Your task to perform on an android device: toggle notification dots Image 0: 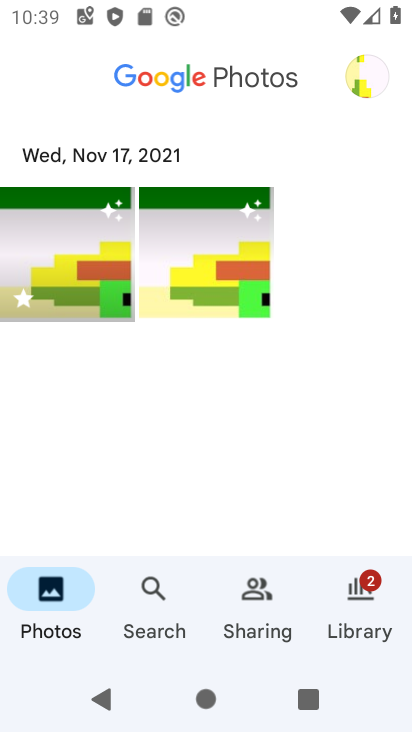
Step 0: press home button
Your task to perform on an android device: toggle notification dots Image 1: 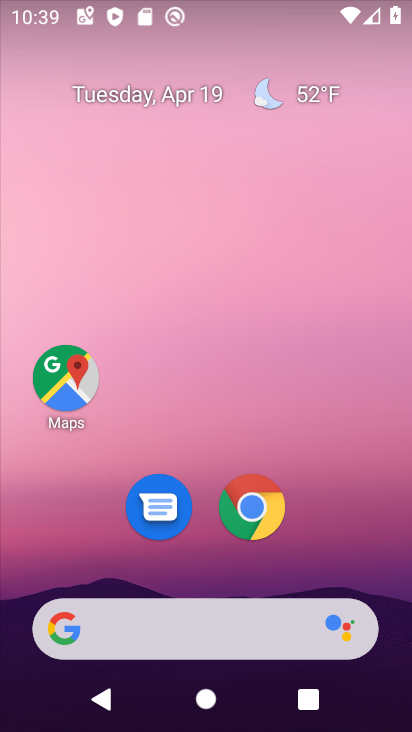
Step 1: drag from (358, 548) to (344, 76)
Your task to perform on an android device: toggle notification dots Image 2: 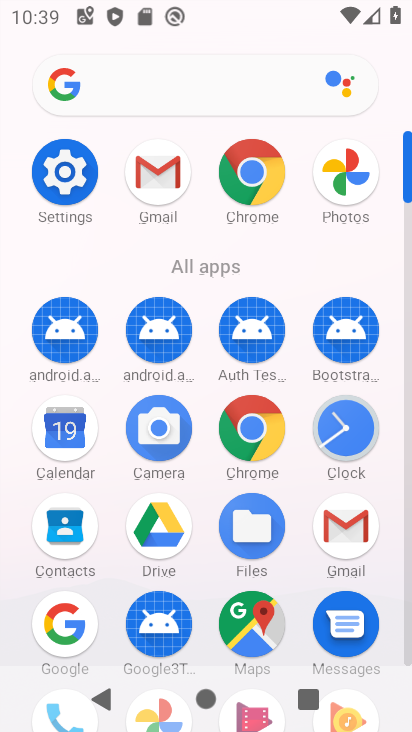
Step 2: click (63, 187)
Your task to perform on an android device: toggle notification dots Image 3: 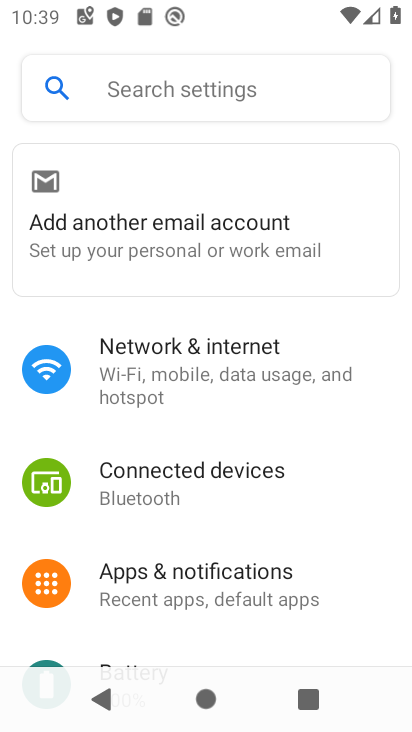
Step 3: drag from (357, 580) to (374, 361)
Your task to perform on an android device: toggle notification dots Image 4: 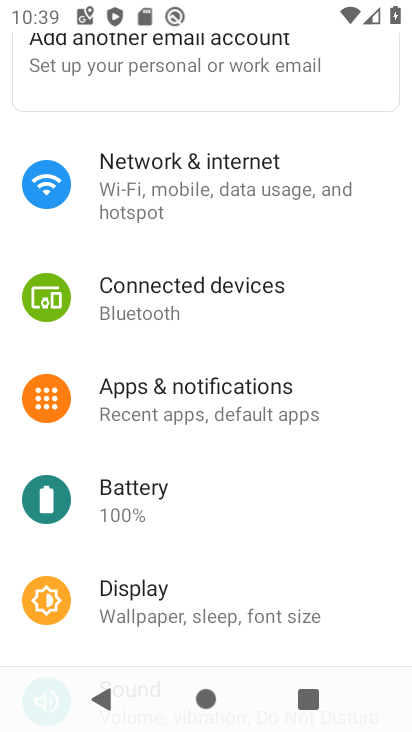
Step 4: drag from (359, 601) to (364, 316)
Your task to perform on an android device: toggle notification dots Image 5: 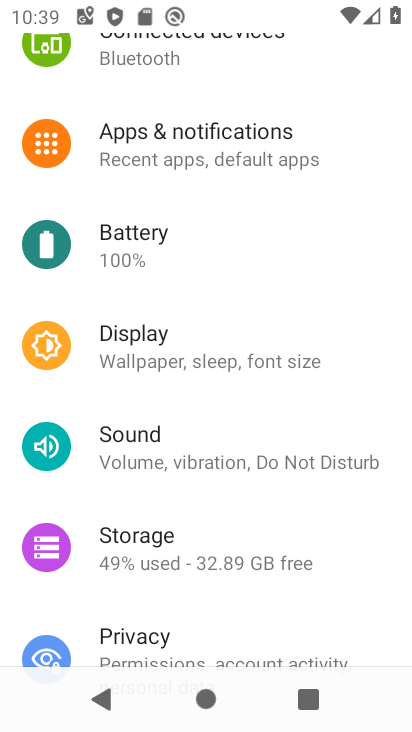
Step 5: drag from (339, 575) to (333, 268)
Your task to perform on an android device: toggle notification dots Image 6: 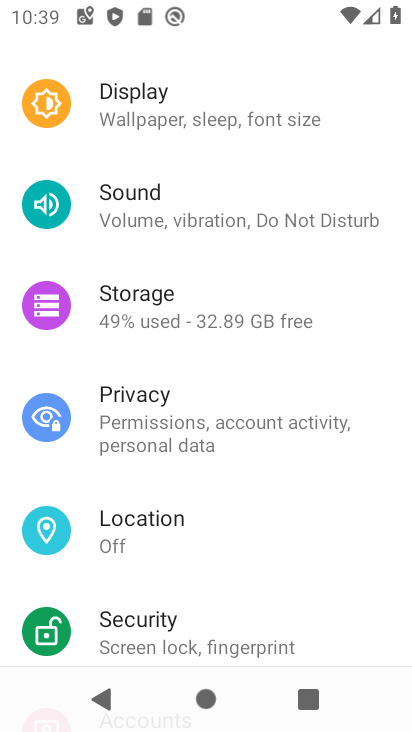
Step 6: drag from (330, 574) to (374, 266)
Your task to perform on an android device: toggle notification dots Image 7: 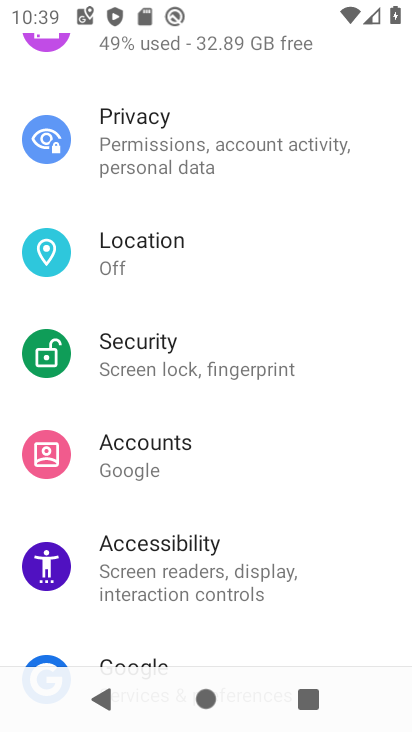
Step 7: drag from (347, 536) to (384, 250)
Your task to perform on an android device: toggle notification dots Image 8: 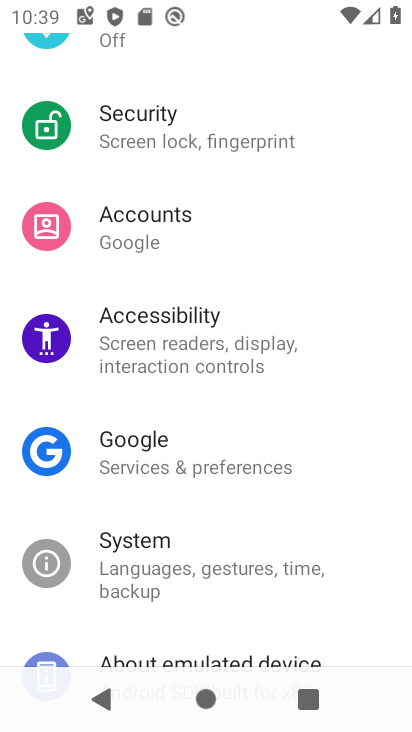
Step 8: drag from (363, 188) to (354, 467)
Your task to perform on an android device: toggle notification dots Image 9: 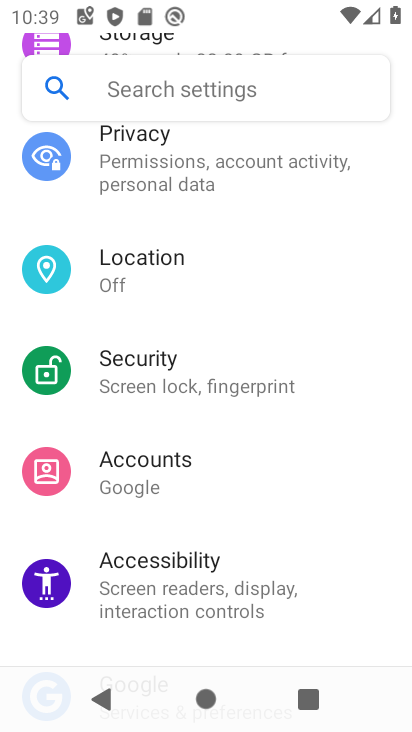
Step 9: drag from (367, 238) to (363, 478)
Your task to perform on an android device: toggle notification dots Image 10: 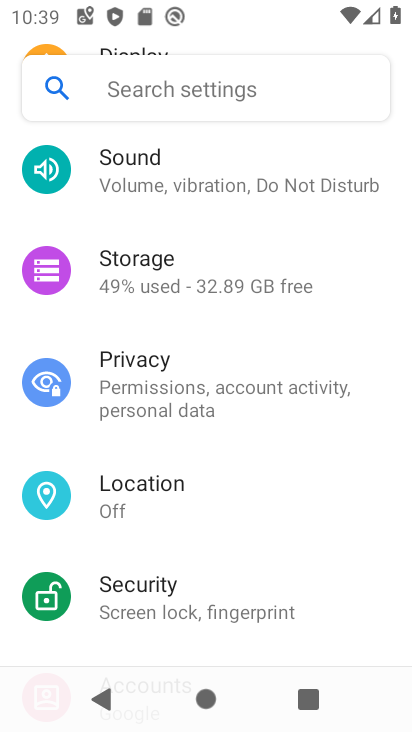
Step 10: drag from (347, 242) to (322, 512)
Your task to perform on an android device: toggle notification dots Image 11: 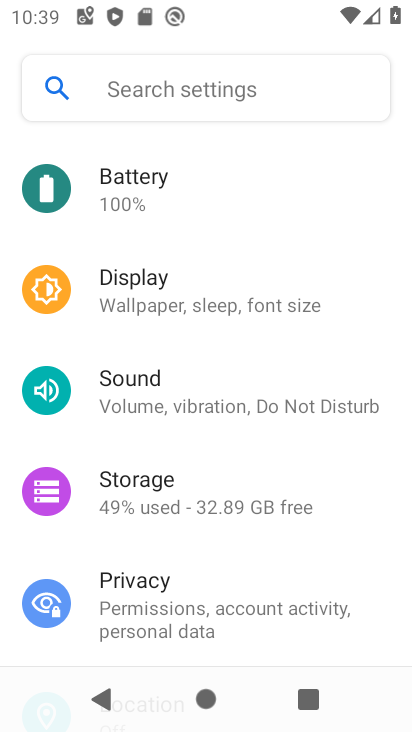
Step 11: drag from (370, 243) to (348, 499)
Your task to perform on an android device: toggle notification dots Image 12: 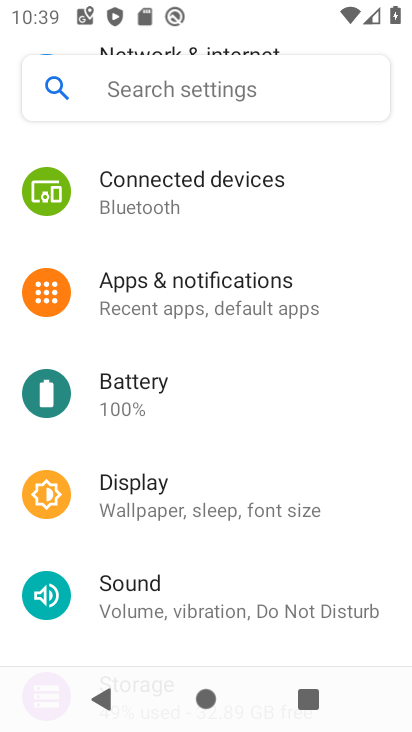
Step 12: click (216, 284)
Your task to perform on an android device: toggle notification dots Image 13: 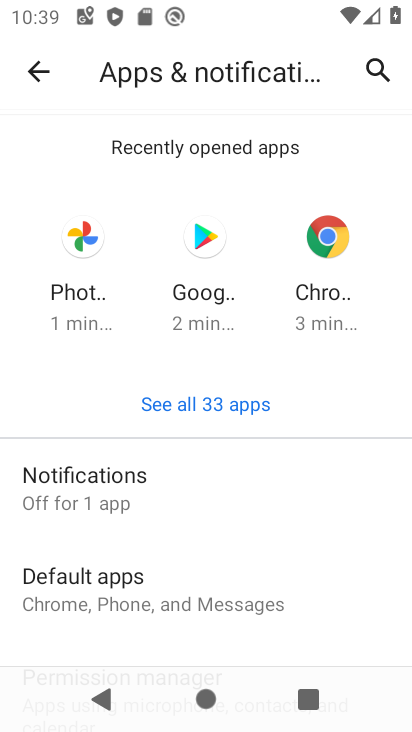
Step 13: drag from (327, 542) to (357, 245)
Your task to perform on an android device: toggle notification dots Image 14: 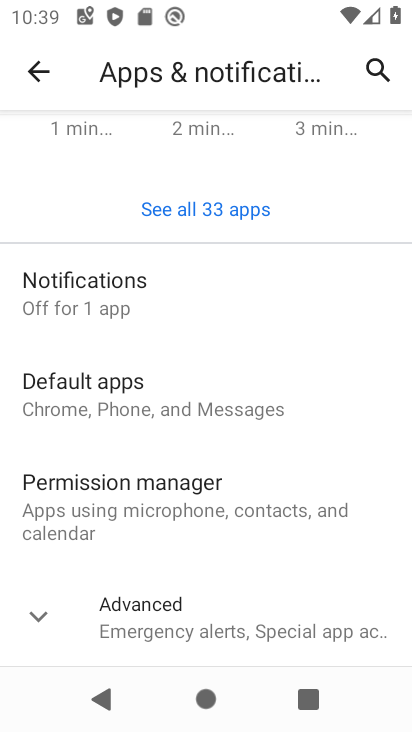
Step 14: click (101, 281)
Your task to perform on an android device: toggle notification dots Image 15: 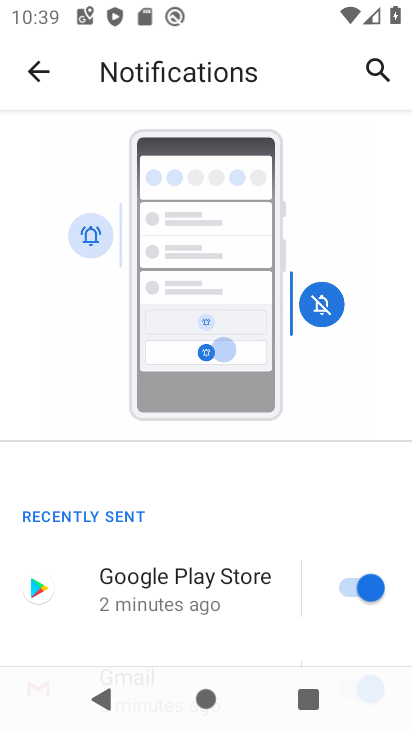
Step 15: drag from (280, 562) to (279, 268)
Your task to perform on an android device: toggle notification dots Image 16: 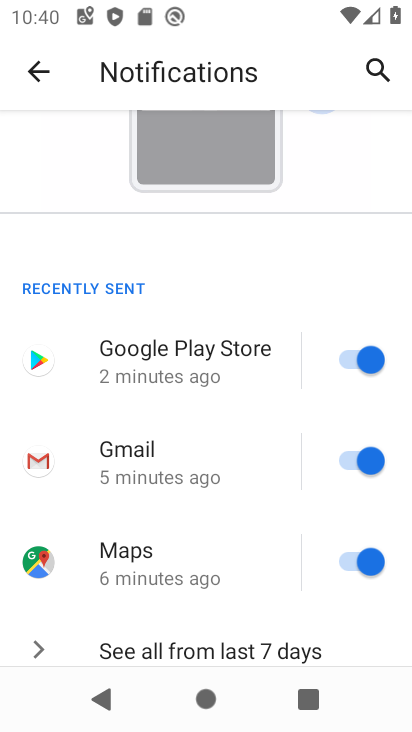
Step 16: drag from (275, 535) to (289, 257)
Your task to perform on an android device: toggle notification dots Image 17: 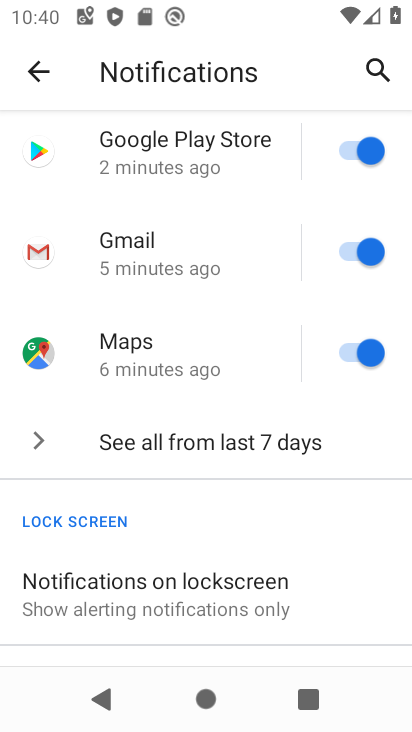
Step 17: drag from (318, 588) to (282, 305)
Your task to perform on an android device: toggle notification dots Image 18: 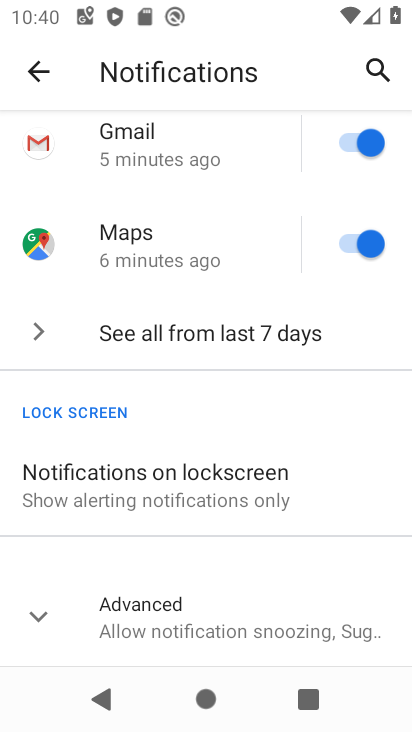
Step 18: click (145, 618)
Your task to perform on an android device: toggle notification dots Image 19: 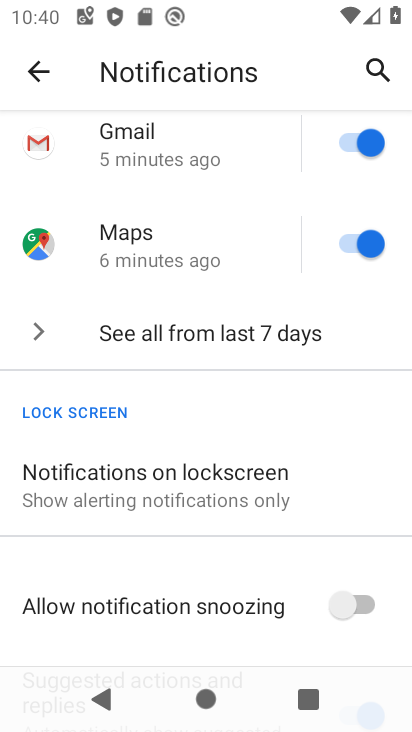
Step 19: drag from (304, 627) to (321, 339)
Your task to perform on an android device: toggle notification dots Image 20: 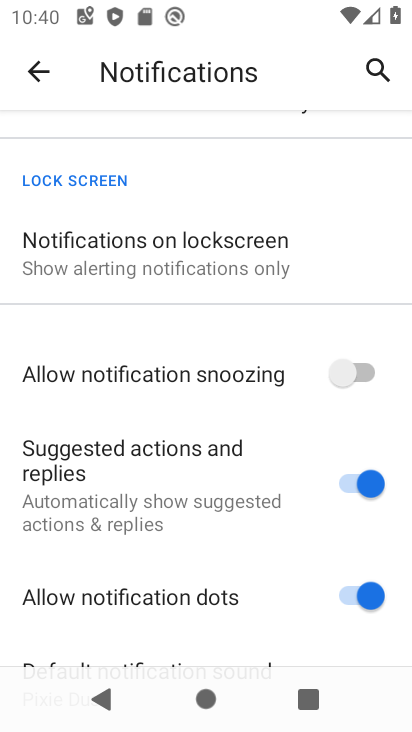
Step 20: drag from (293, 583) to (338, 305)
Your task to perform on an android device: toggle notification dots Image 21: 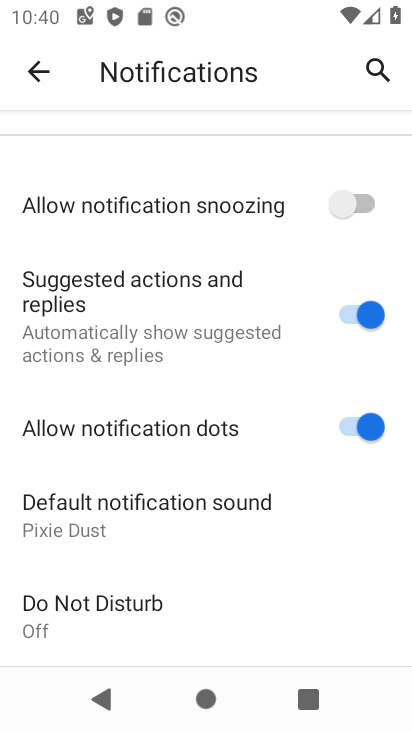
Step 21: click (375, 423)
Your task to perform on an android device: toggle notification dots Image 22: 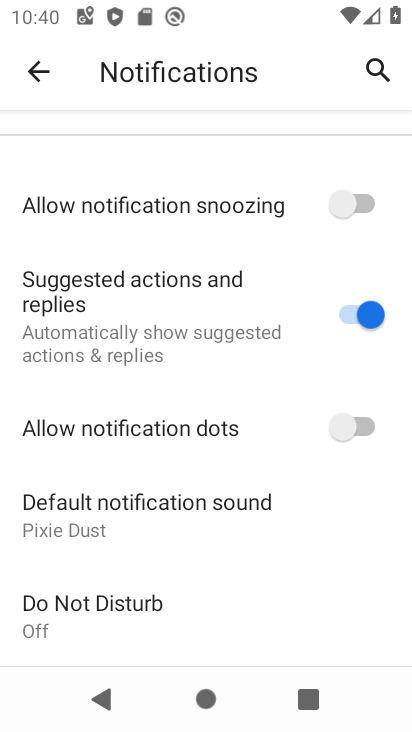
Step 22: task complete